Your task to perform on an android device: Open network settings Image 0: 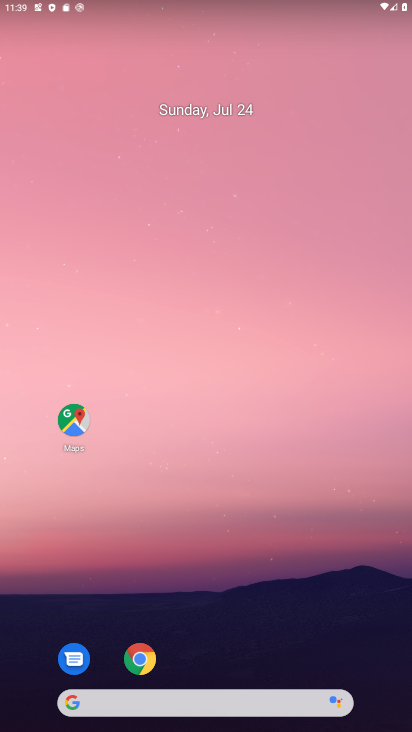
Step 0: drag from (26, 699) to (234, 143)
Your task to perform on an android device: Open network settings Image 1: 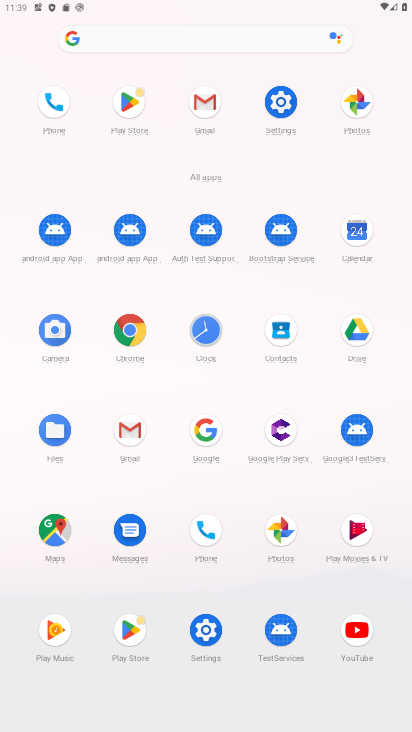
Step 1: click (199, 635)
Your task to perform on an android device: Open network settings Image 2: 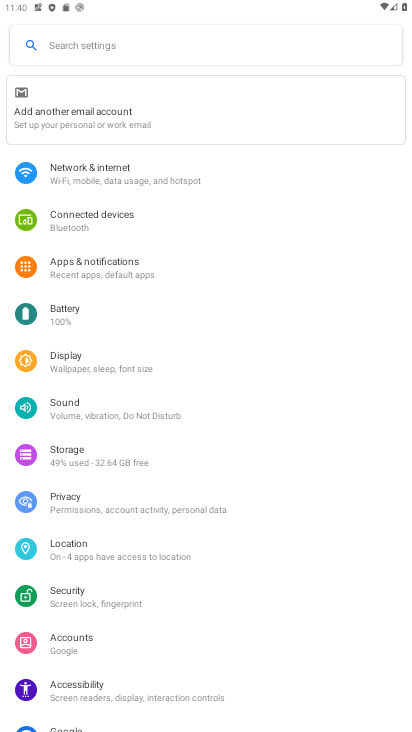
Step 2: task complete